Your task to perform on an android device: manage bookmarks in the chrome app Image 0: 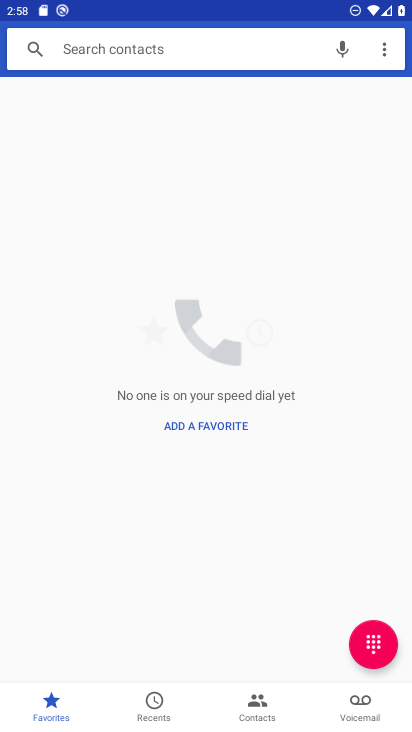
Step 0: press home button
Your task to perform on an android device: manage bookmarks in the chrome app Image 1: 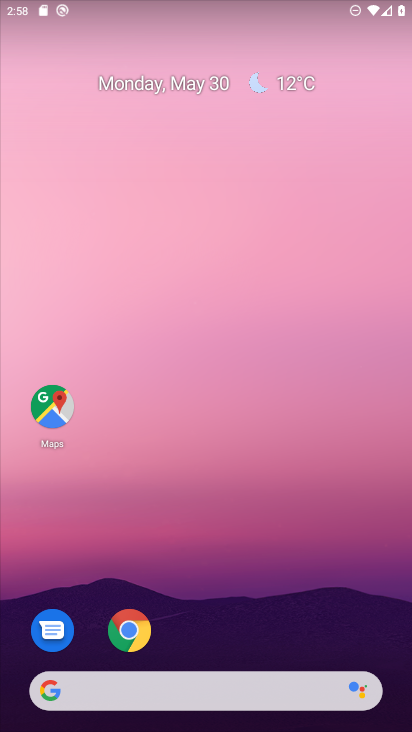
Step 1: click (259, 89)
Your task to perform on an android device: manage bookmarks in the chrome app Image 2: 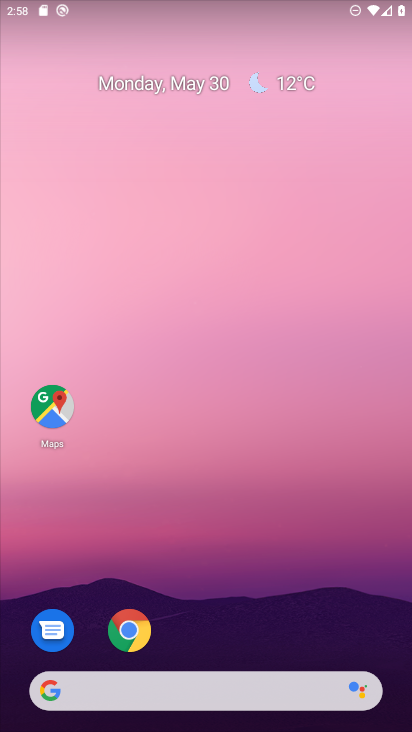
Step 2: drag from (256, 719) to (231, 178)
Your task to perform on an android device: manage bookmarks in the chrome app Image 3: 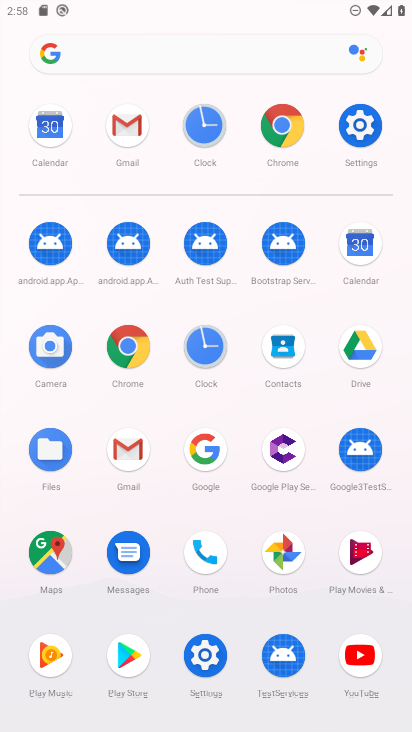
Step 3: click (282, 127)
Your task to perform on an android device: manage bookmarks in the chrome app Image 4: 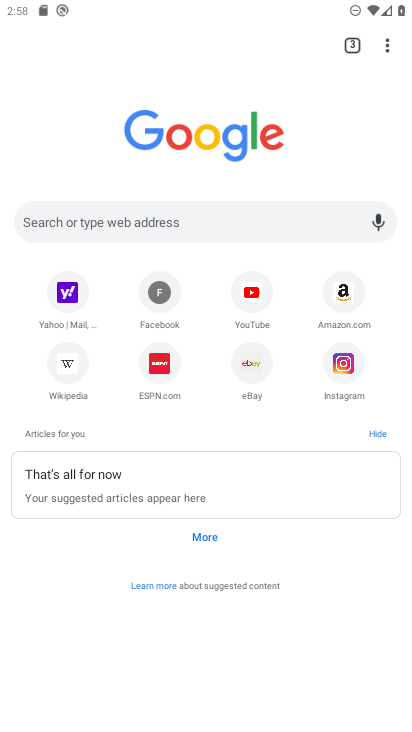
Step 4: drag from (383, 51) to (273, 173)
Your task to perform on an android device: manage bookmarks in the chrome app Image 5: 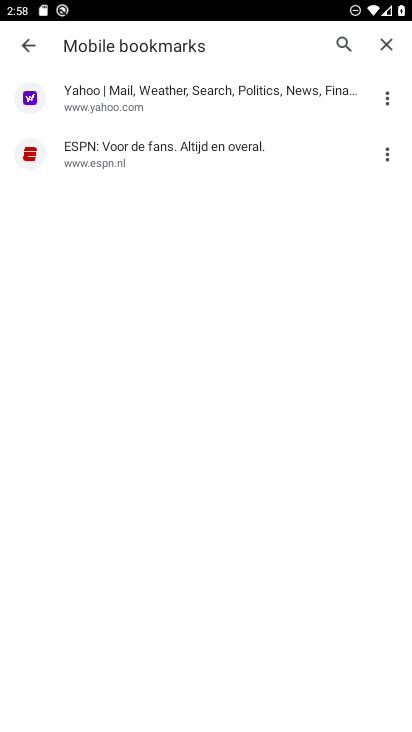
Step 5: click (383, 152)
Your task to perform on an android device: manage bookmarks in the chrome app Image 6: 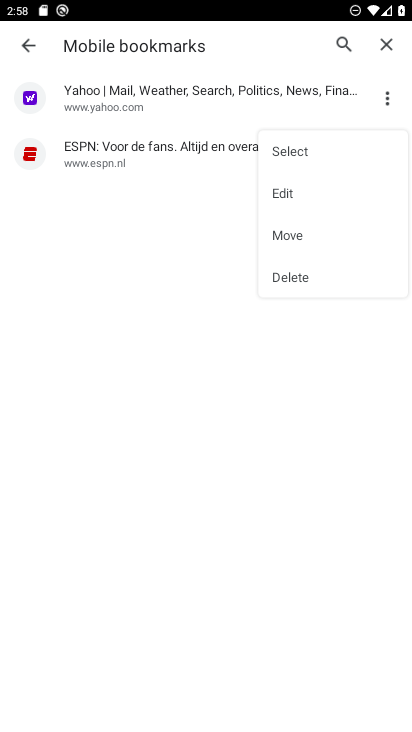
Step 6: click (293, 275)
Your task to perform on an android device: manage bookmarks in the chrome app Image 7: 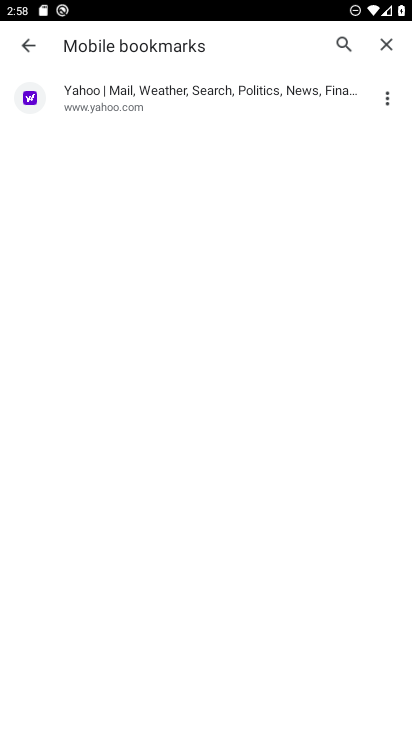
Step 7: task complete